Your task to perform on an android device: Is it going to rain tomorrow? Image 0: 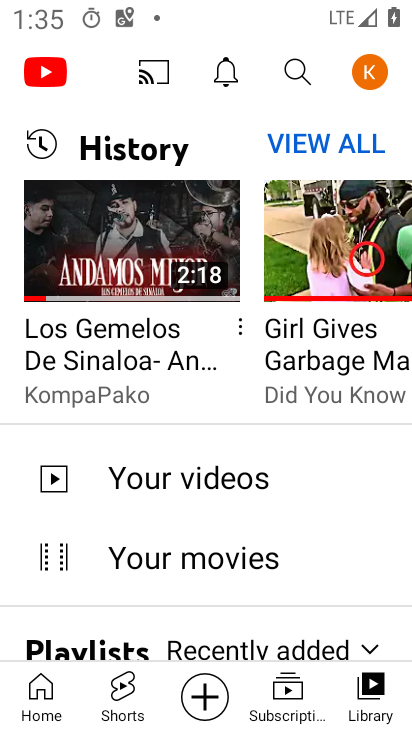
Step 0: press home button
Your task to perform on an android device: Is it going to rain tomorrow? Image 1: 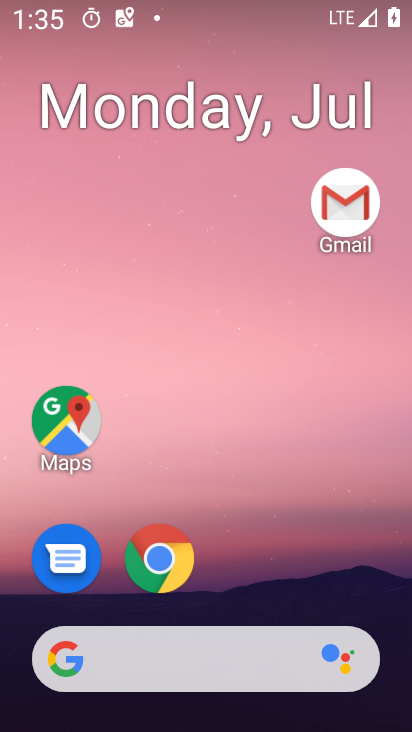
Step 1: click (171, 652)
Your task to perform on an android device: Is it going to rain tomorrow? Image 2: 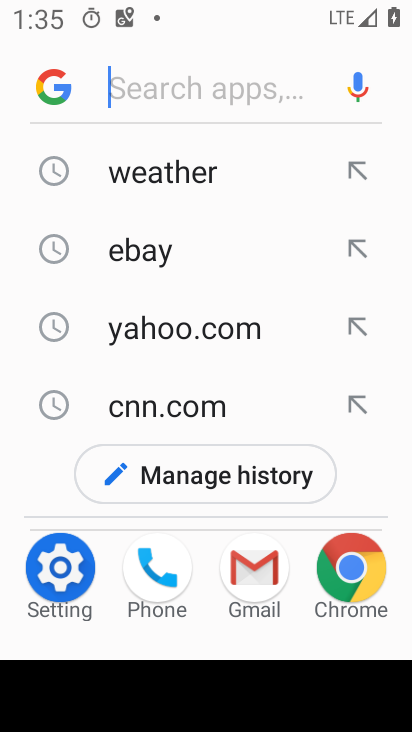
Step 2: click (194, 180)
Your task to perform on an android device: Is it going to rain tomorrow? Image 3: 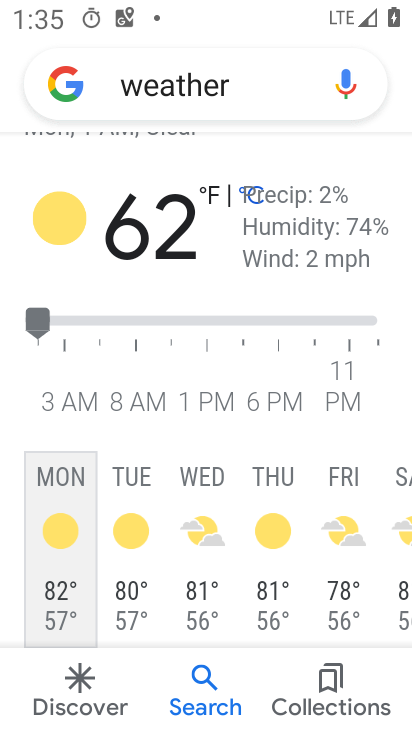
Step 3: click (128, 482)
Your task to perform on an android device: Is it going to rain tomorrow? Image 4: 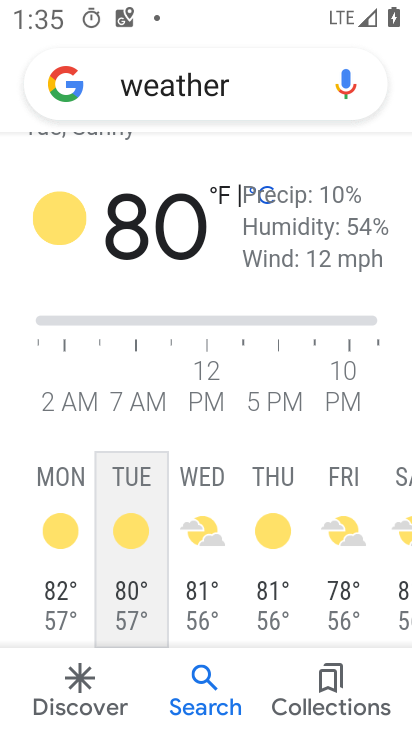
Step 4: task complete